Your task to perform on an android device: change the clock display to digital Image 0: 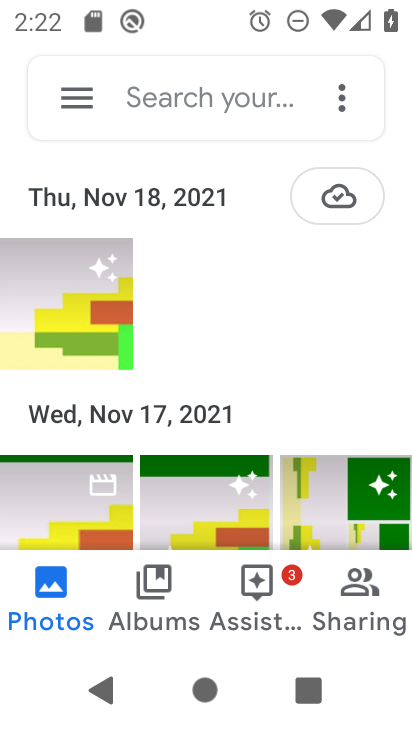
Step 0: press home button
Your task to perform on an android device: change the clock display to digital Image 1: 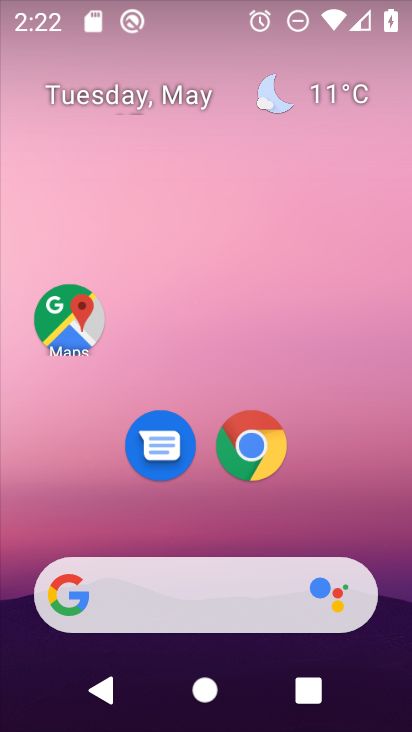
Step 1: drag from (326, 499) to (296, 145)
Your task to perform on an android device: change the clock display to digital Image 2: 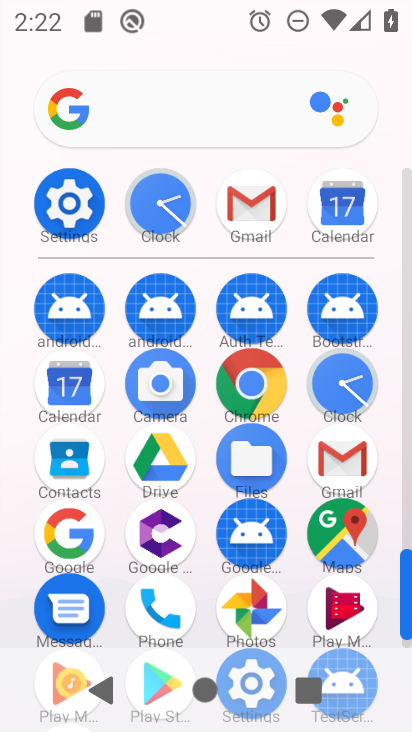
Step 2: click (151, 202)
Your task to perform on an android device: change the clock display to digital Image 3: 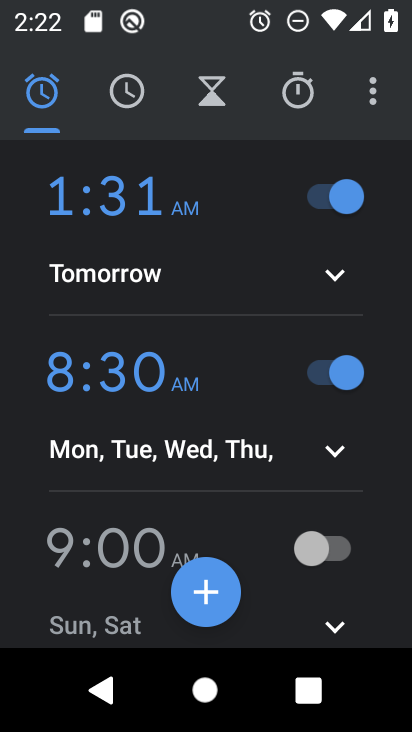
Step 3: click (379, 93)
Your task to perform on an android device: change the clock display to digital Image 4: 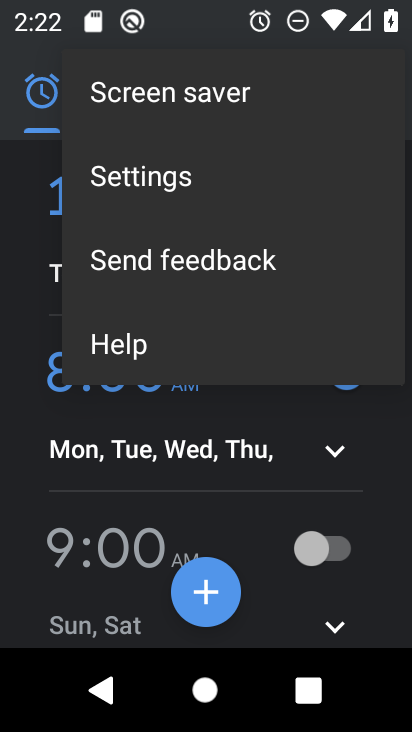
Step 4: click (160, 193)
Your task to perform on an android device: change the clock display to digital Image 5: 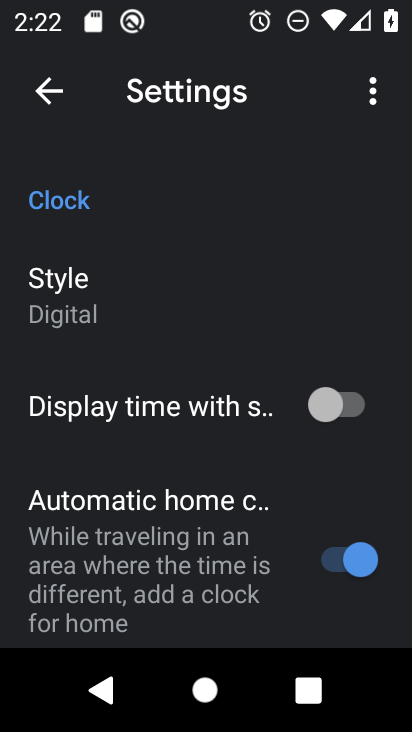
Step 5: click (114, 291)
Your task to perform on an android device: change the clock display to digital Image 6: 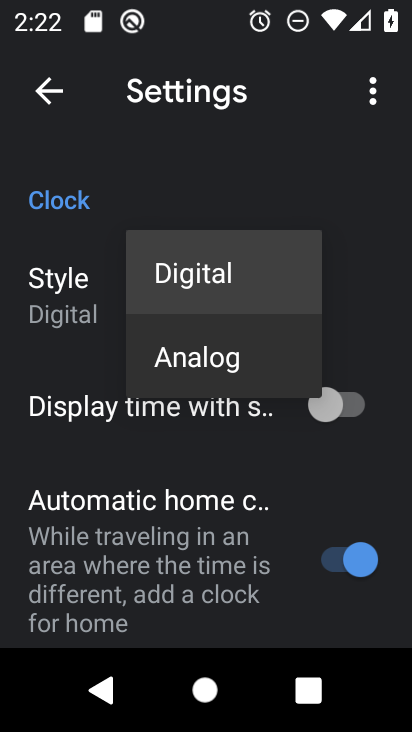
Step 6: task complete